Your task to perform on an android device: Open privacy settings Image 0: 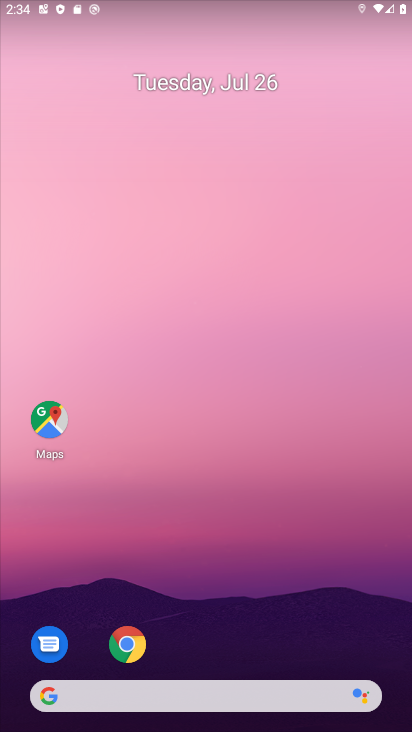
Step 0: press home button
Your task to perform on an android device: Open privacy settings Image 1: 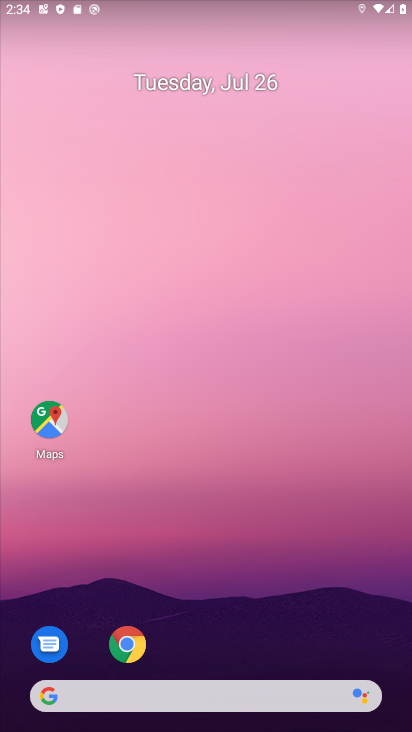
Step 1: drag from (247, 617) to (296, 156)
Your task to perform on an android device: Open privacy settings Image 2: 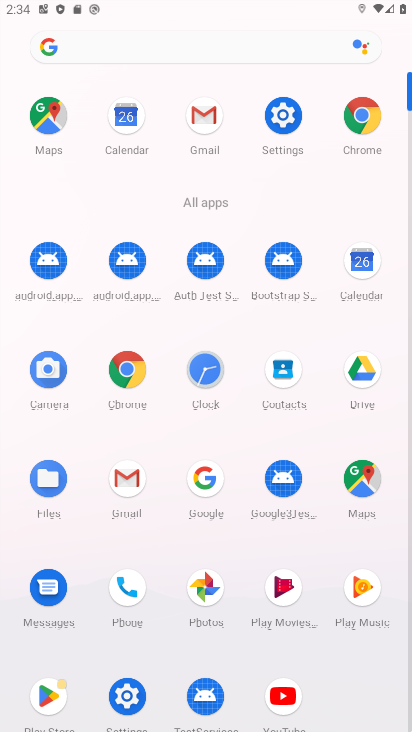
Step 2: click (280, 120)
Your task to perform on an android device: Open privacy settings Image 3: 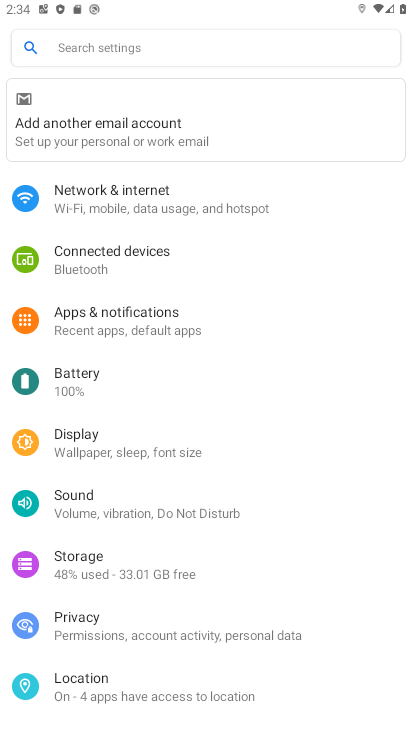
Step 3: click (89, 626)
Your task to perform on an android device: Open privacy settings Image 4: 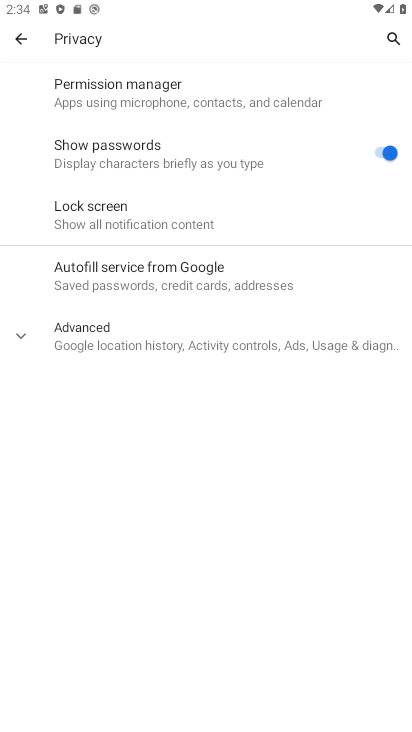
Step 4: task complete